Your task to perform on an android device: open app "Skype" (install if not already installed), go to login, and select forgot password Image 0: 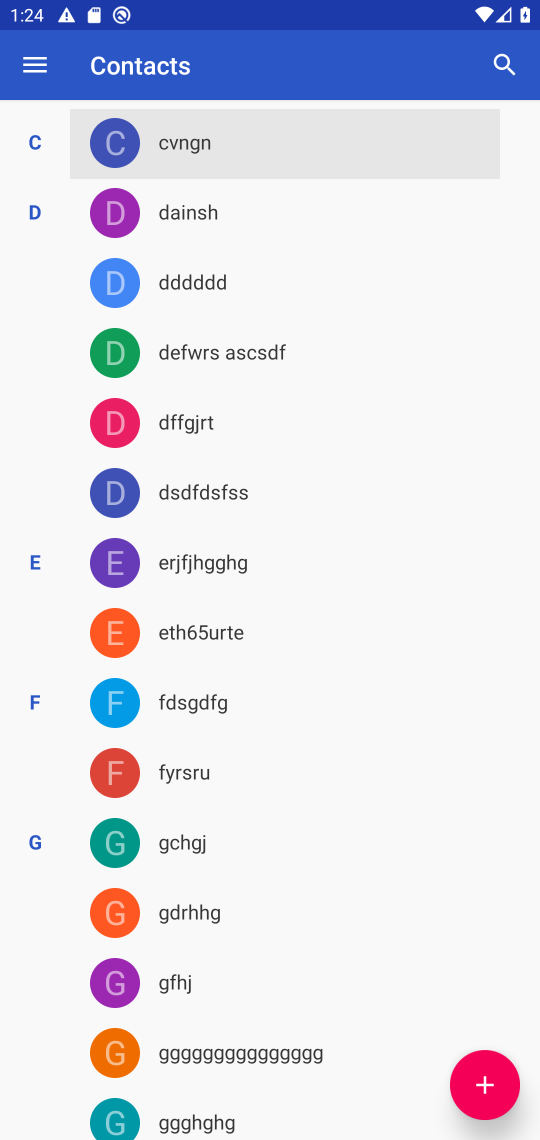
Step 0: task complete